Your task to perform on an android device: turn off priority inbox in the gmail app Image 0: 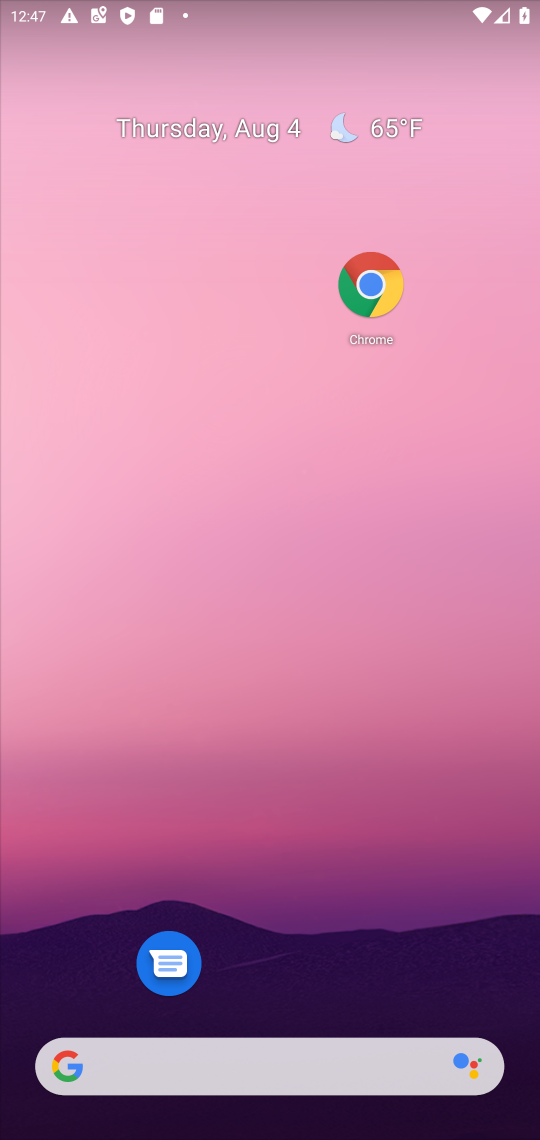
Step 0: drag from (277, 604) to (291, 421)
Your task to perform on an android device: turn off priority inbox in the gmail app Image 1: 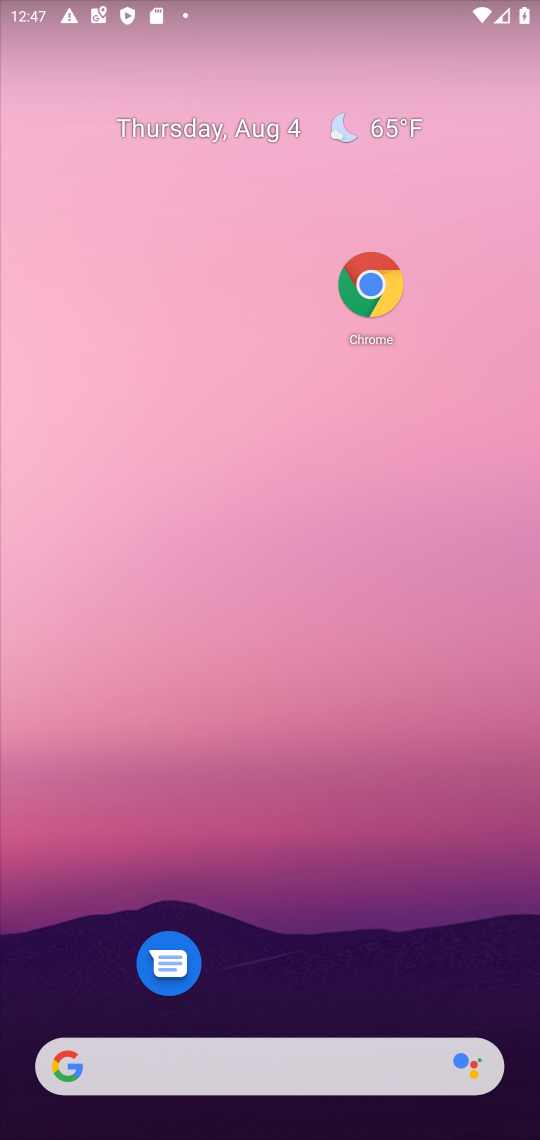
Step 1: drag from (233, 1055) to (262, 360)
Your task to perform on an android device: turn off priority inbox in the gmail app Image 2: 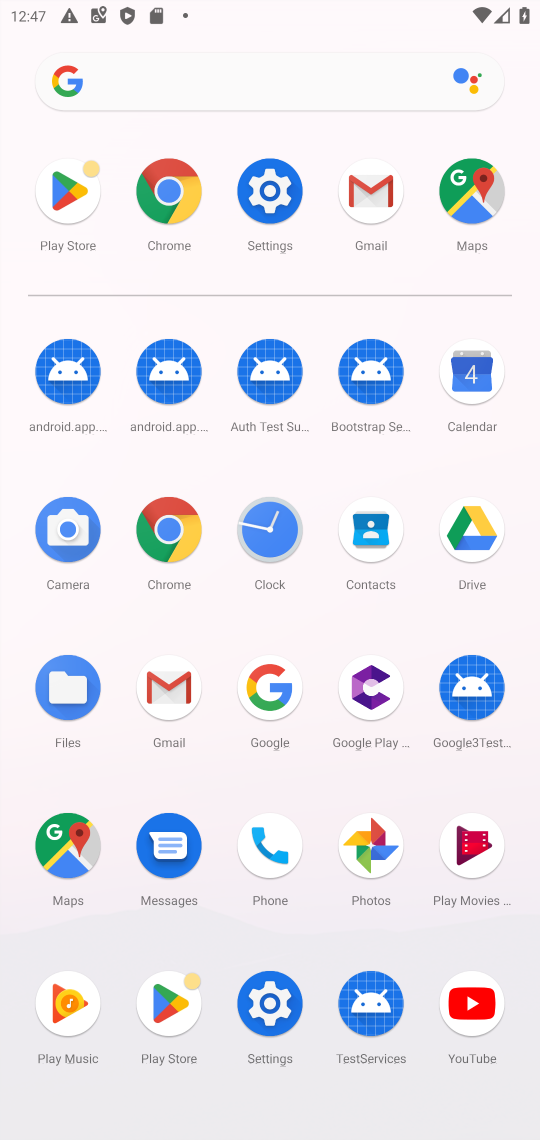
Step 2: click (154, 694)
Your task to perform on an android device: turn off priority inbox in the gmail app Image 3: 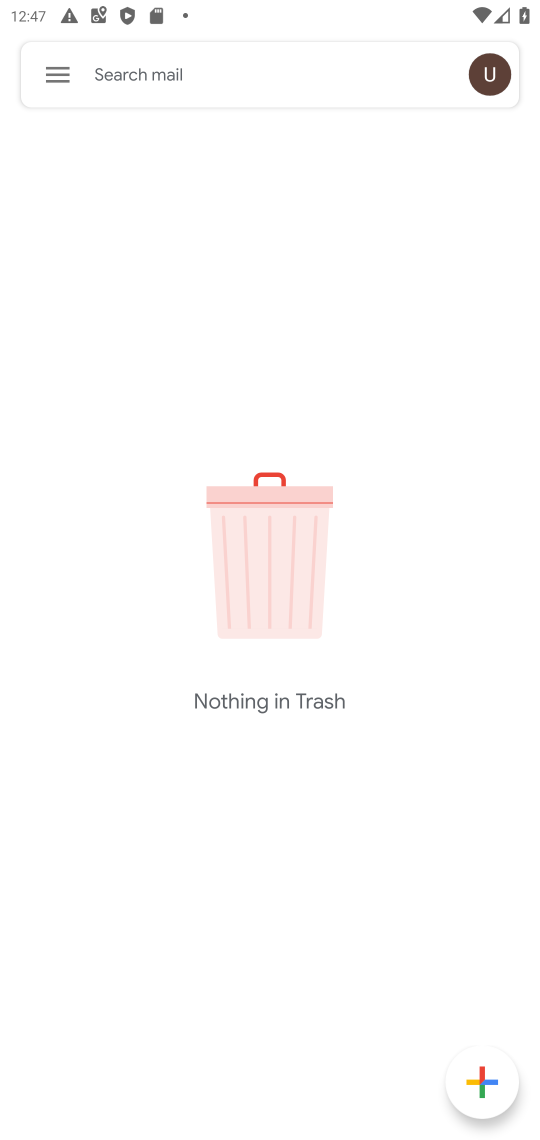
Step 3: click (65, 57)
Your task to perform on an android device: turn off priority inbox in the gmail app Image 4: 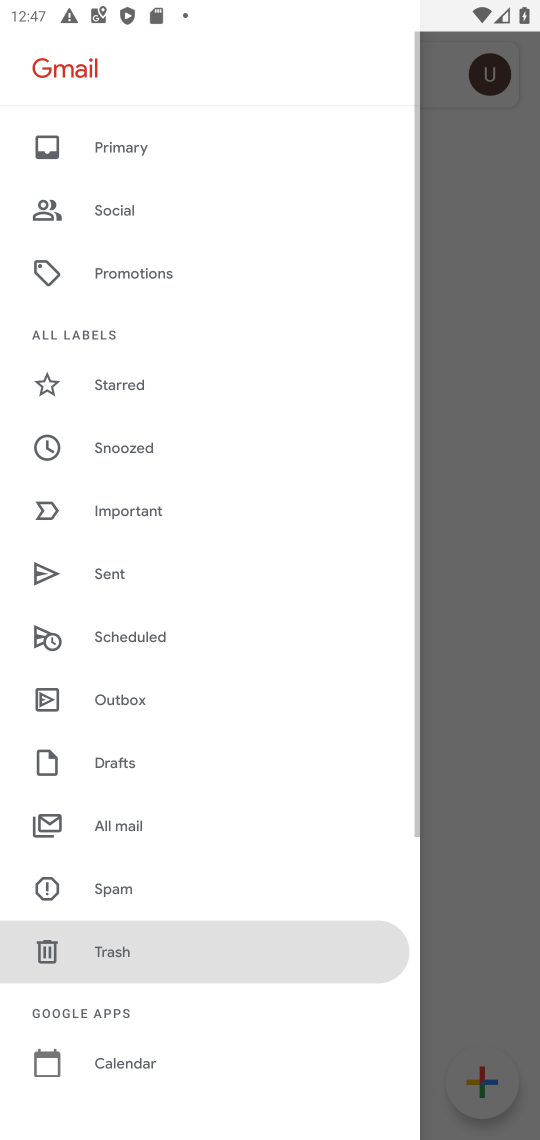
Step 4: drag from (104, 1068) to (91, 473)
Your task to perform on an android device: turn off priority inbox in the gmail app Image 5: 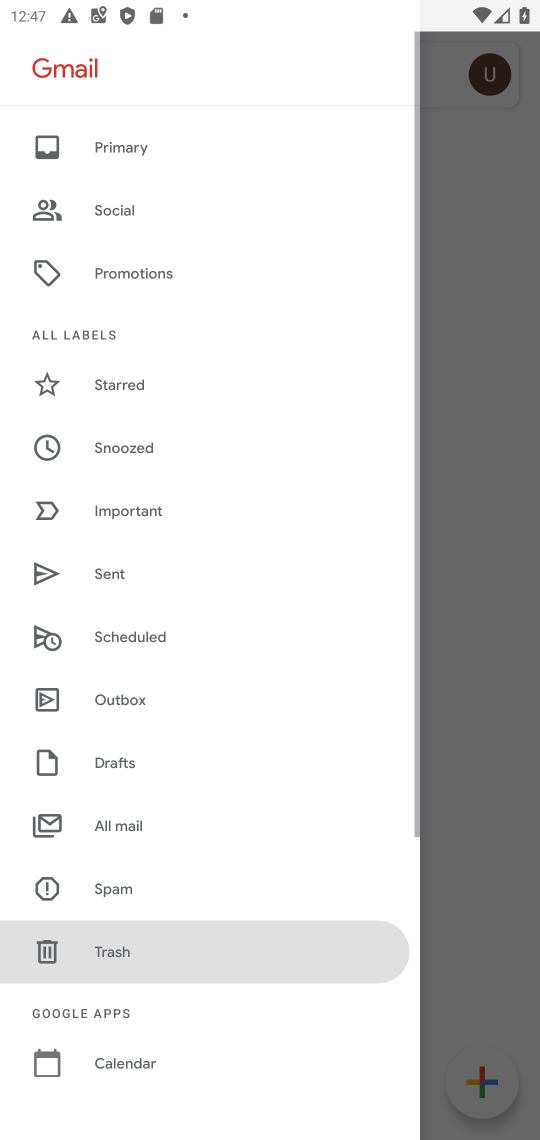
Step 5: drag from (153, 1017) to (204, 351)
Your task to perform on an android device: turn off priority inbox in the gmail app Image 6: 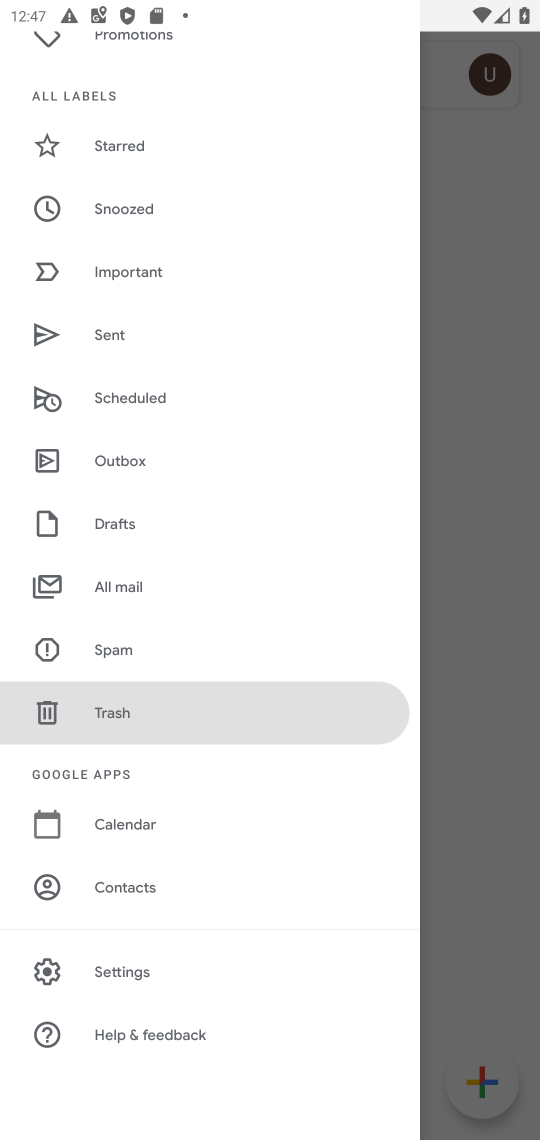
Step 6: click (138, 975)
Your task to perform on an android device: turn off priority inbox in the gmail app Image 7: 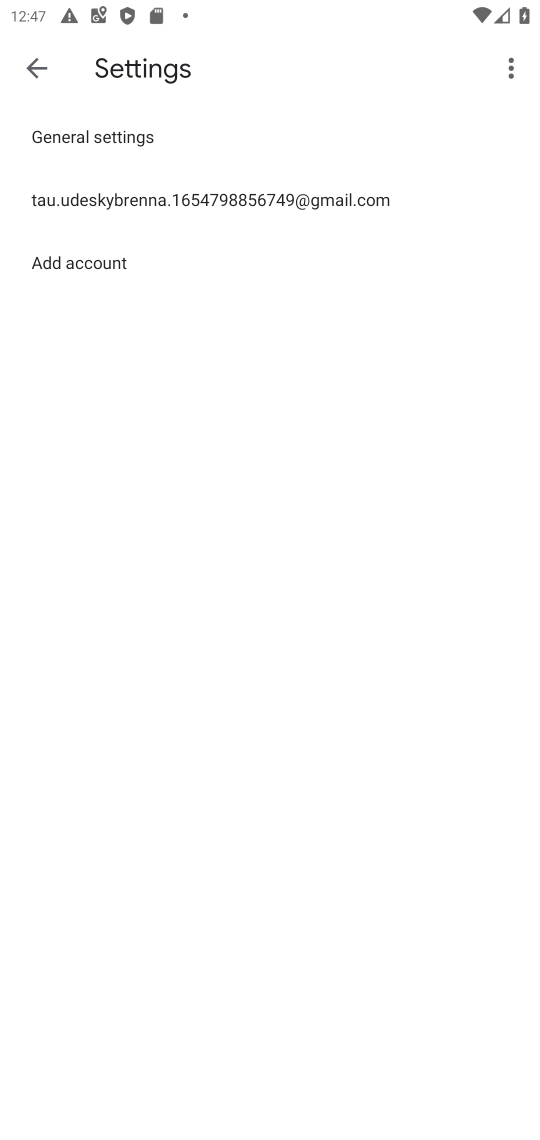
Step 7: click (98, 204)
Your task to perform on an android device: turn off priority inbox in the gmail app Image 8: 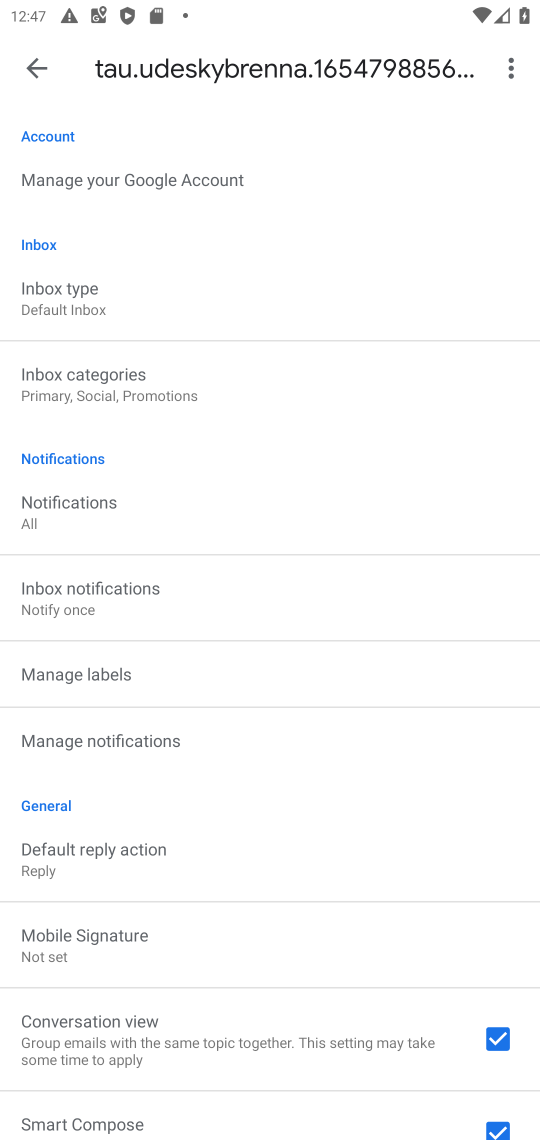
Step 8: click (102, 298)
Your task to perform on an android device: turn off priority inbox in the gmail app Image 9: 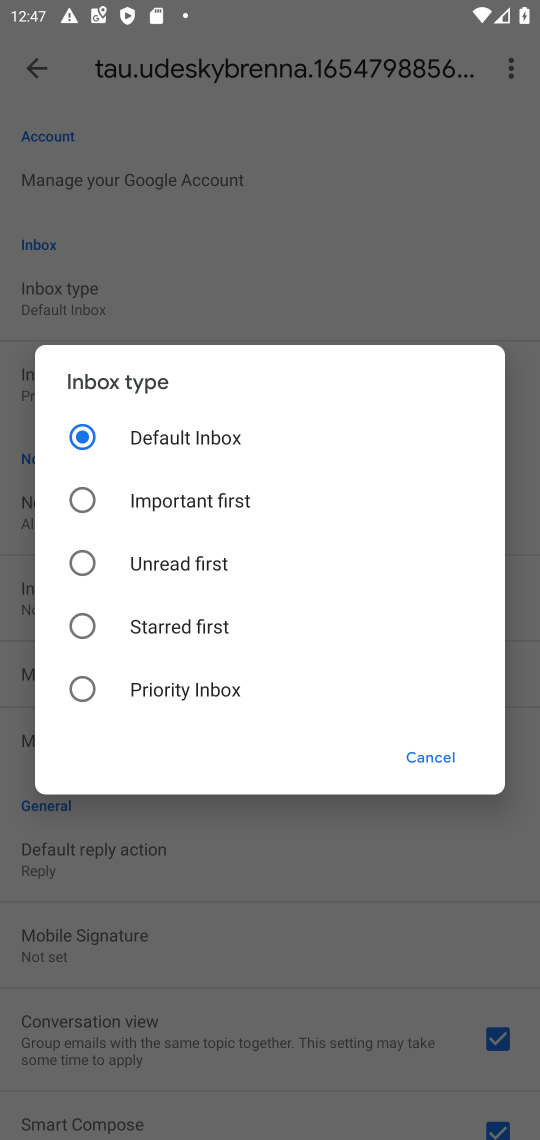
Step 9: click (74, 691)
Your task to perform on an android device: turn off priority inbox in the gmail app Image 10: 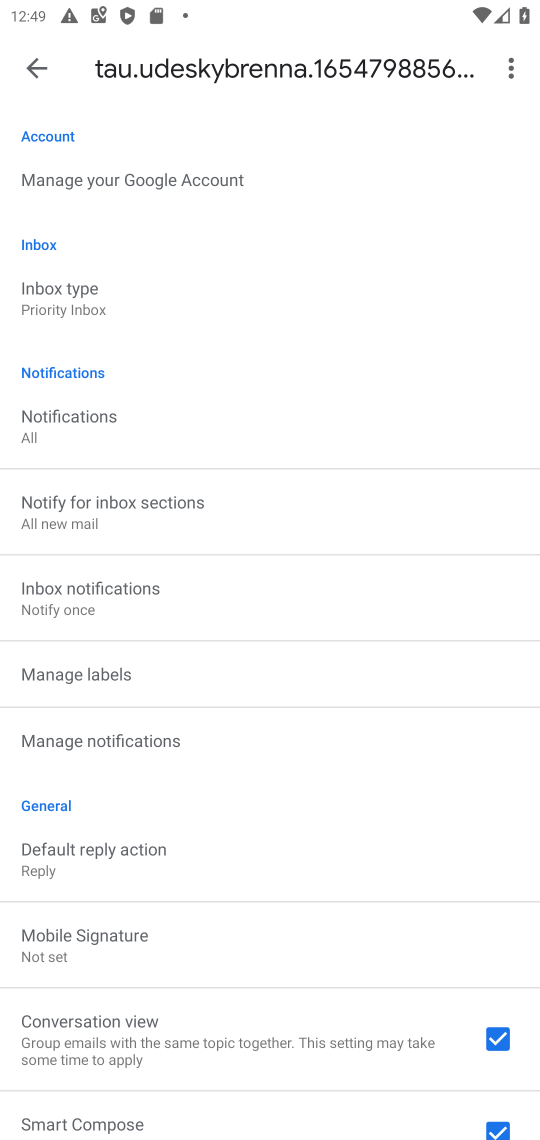
Step 10: task complete